Your task to perform on an android device: When is my next appointment? Image 0: 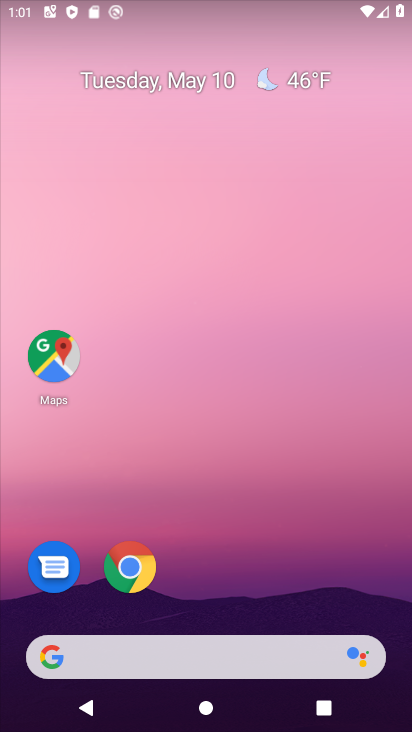
Step 0: drag from (215, 592) to (236, 158)
Your task to perform on an android device: When is my next appointment? Image 1: 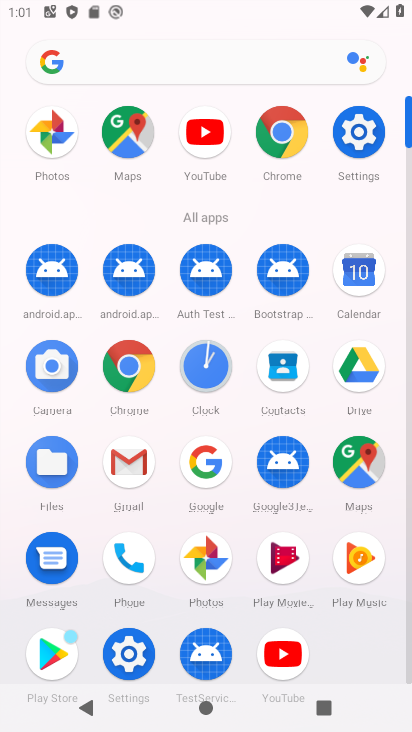
Step 1: click (360, 280)
Your task to perform on an android device: When is my next appointment? Image 2: 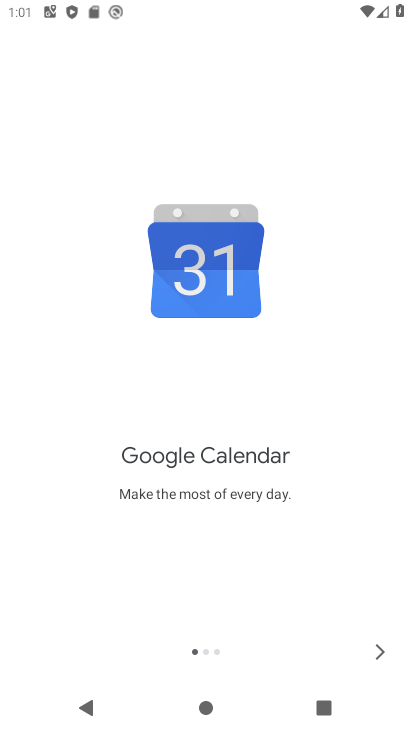
Step 2: click (369, 648)
Your task to perform on an android device: When is my next appointment? Image 3: 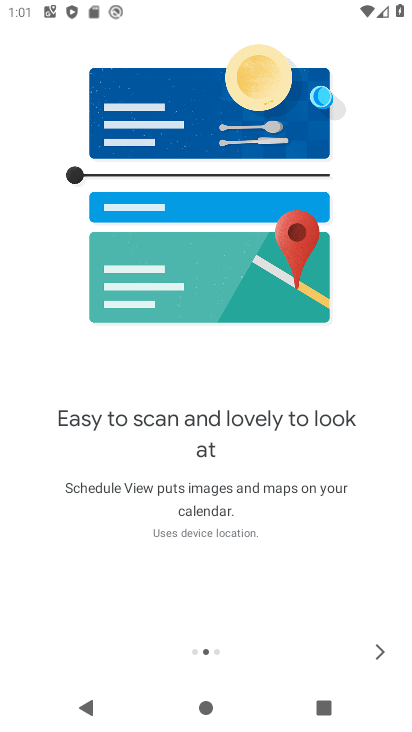
Step 3: click (370, 654)
Your task to perform on an android device: When is my next appointment? Image 4: 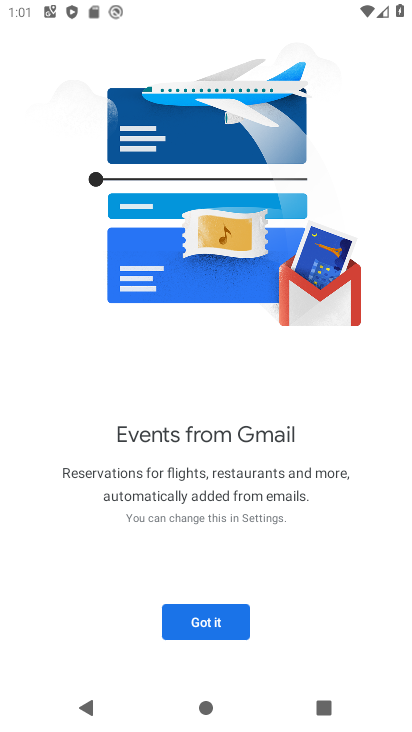
Step 4: click (235, 622)
Your task to perform on an android device: When is my next appointment? Image 5: 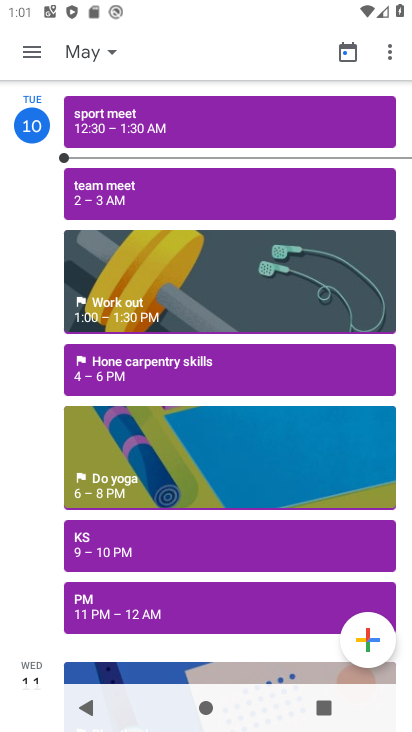
Step 5: click (84, 57)
Your task to perform on an android device: When is my next appointment? Image 6: 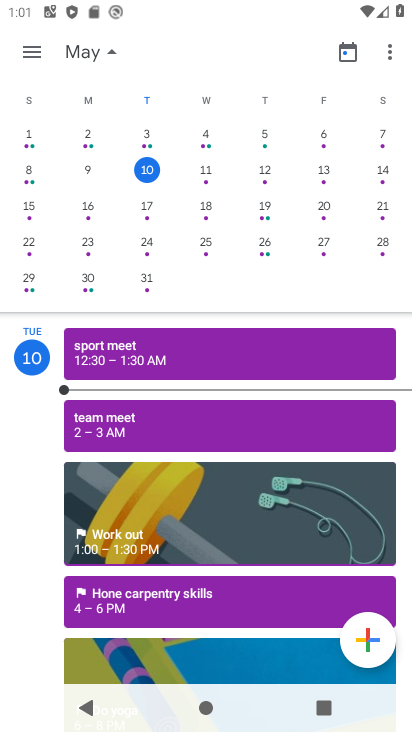
Step 6: click (201, 173)
Your task to perform on an android device: When is my next appointment? Image 7: 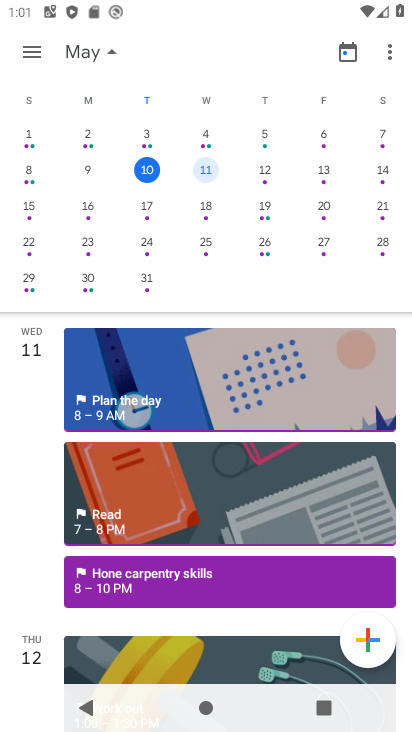
Step 7: click (261, 174)
Your task to perform on an android device: When is my next appointment? Image 8: 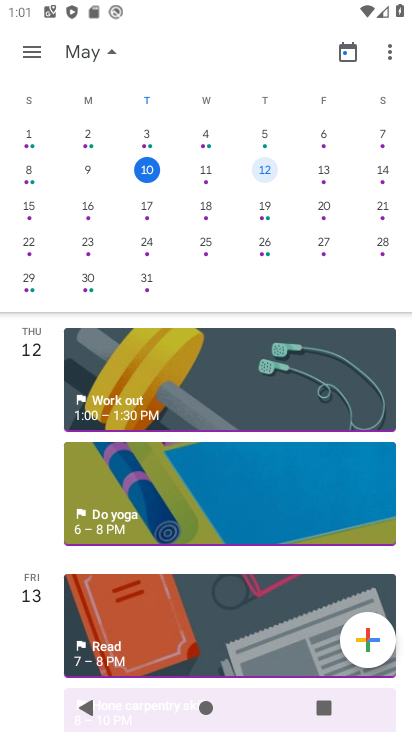
Step 8: task complete